Your task to perform on an android device: open chrome privacy settings Image 0: 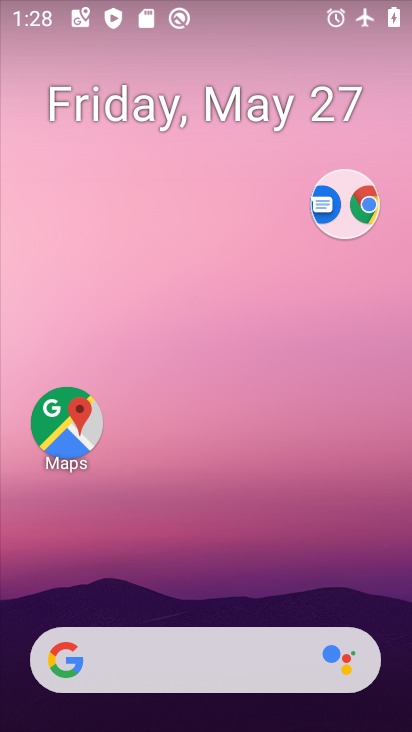
Step 0: drag from (212, 611) to (217, 77)
Your task to perform on an android device: open chrome privacy settings Image 1: 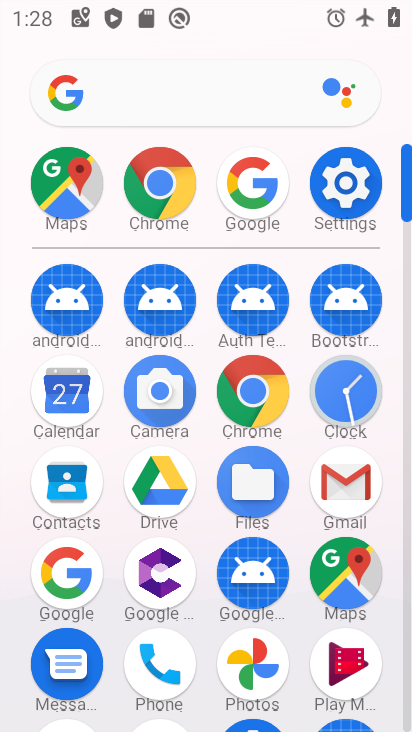
Step 1: click (149, 213)
Your task to perform on an android device: open chrome privacy settings Image 2: 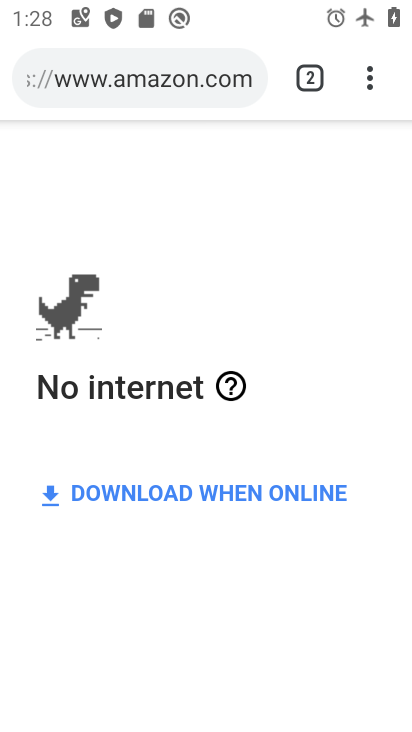
Step 2: click (372, 78)
Your task to perform on an android device: open chrome privacy settings Image 3: 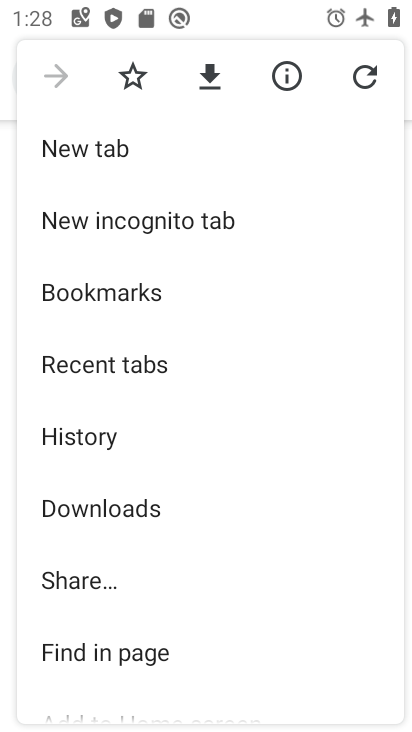
Step 3: drag from (160, 539) to (166, 187)
Your task to perform on an android device: open chrome privacy settings Image 4: 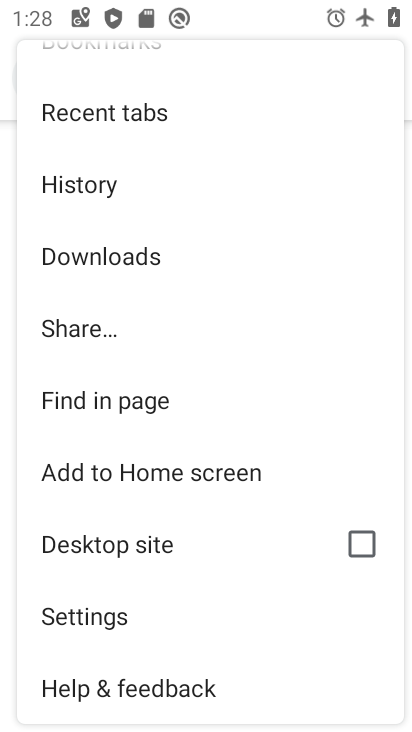
Step 4: click (138, 601)
Your task to perform on an android device: open chrome privacy settings Image 5: 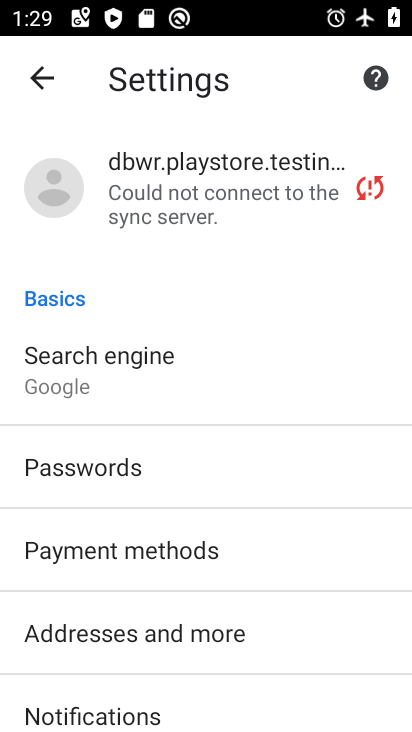
Step 5: drag from (137, 600) to (187, 122)
Your task to perform on an android device: open chrome privacy settings Image 6: 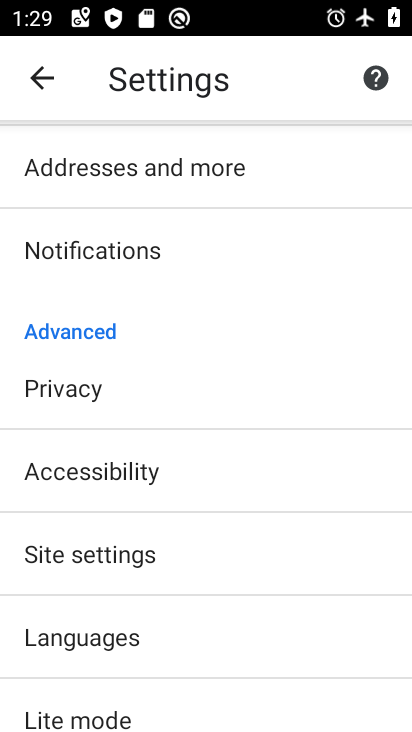
Step 6: click (116, 390)
Your task to perform on an android device: open chrome privacy settings Image 7: 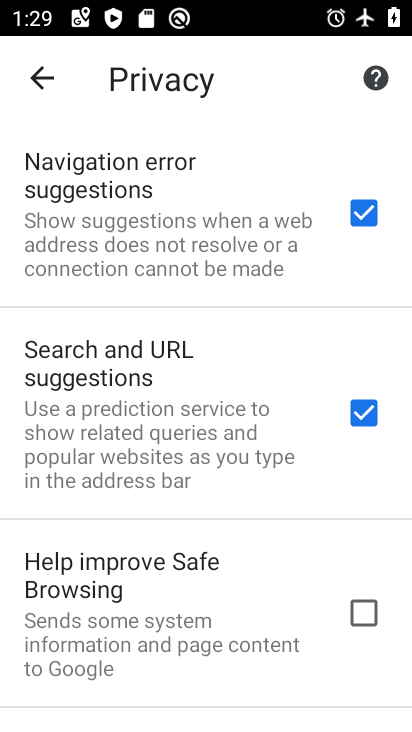
Step 7: task complete